Your task to perform on an android device: turn on data saver in the chrome app Image 0: 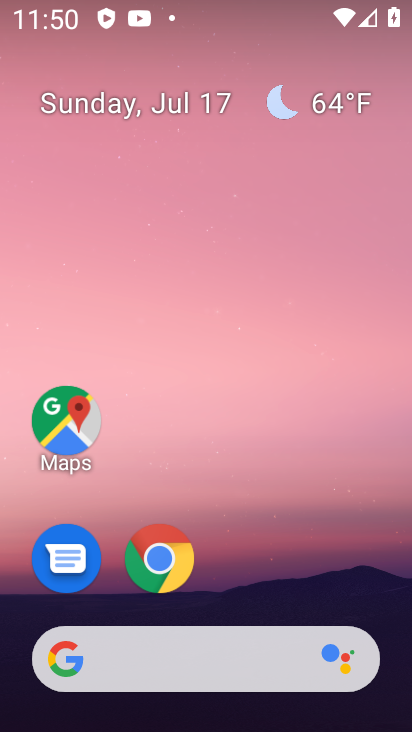
Step 0: drag from (310, 567) to (334, 113)
Your task to perform on an android device: turn on data saver in the chrome app Image 1: 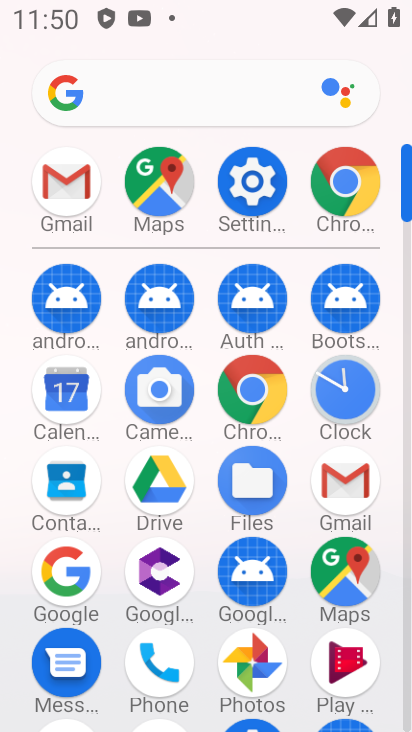
Step 1: click (254, 381)
Your task to perform on an android device: turn on data saver in the chrome app Image 2: 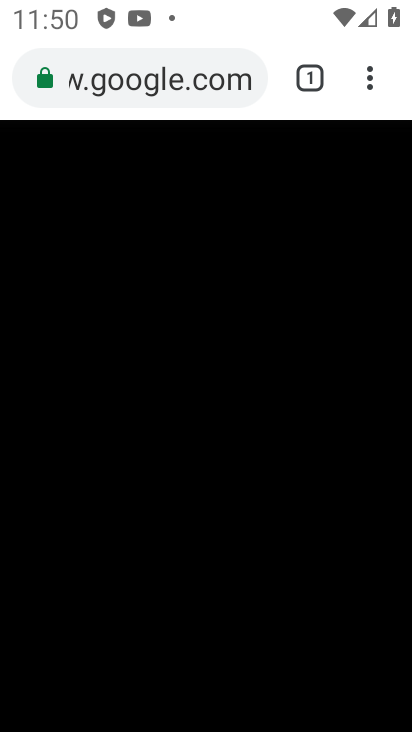
Step 2: click (374, 84)
Your task to perform on an android device: turn on data saver in the chrome app Image 3: 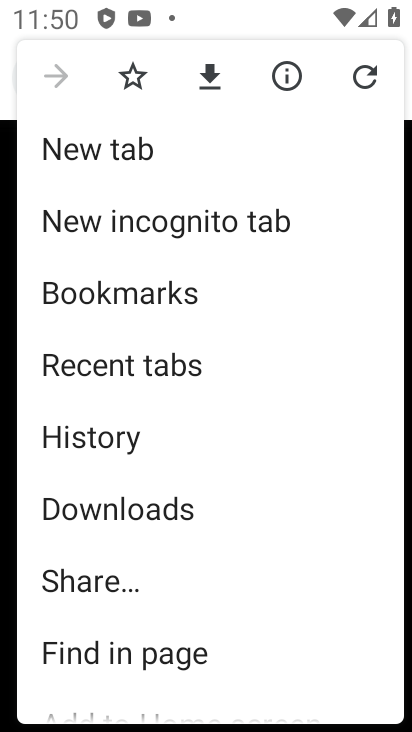
Step 3: drag from (327, 517) to (331, 438)
Your task to perform on an android device: turn on data saver in the chrome app Image 4: 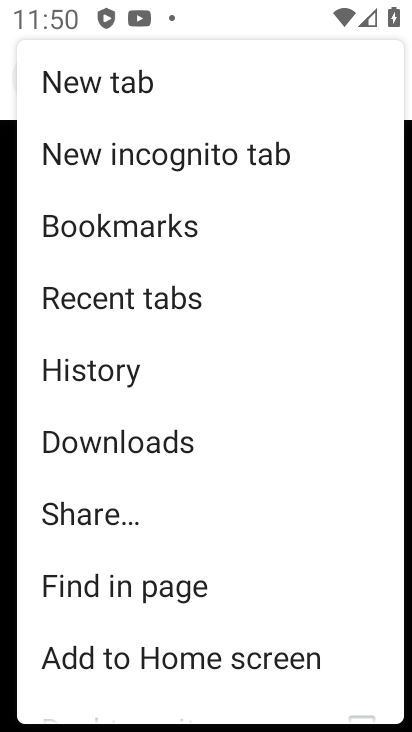
Step 4: drag from (319, 540) to (324, 455)
Your task to perform on an android device: turn on data saver in the chrome app Image 5: 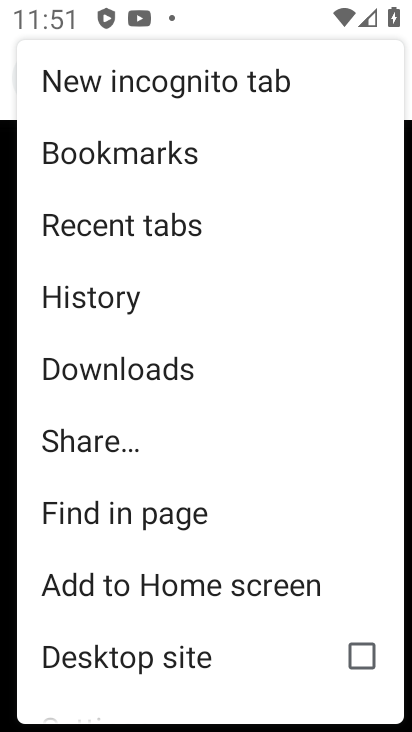
Step 5: drag from (324, 518) to (320, 446)
Your task to perform on an android device: turn on data saver in the chrome app Image 6: 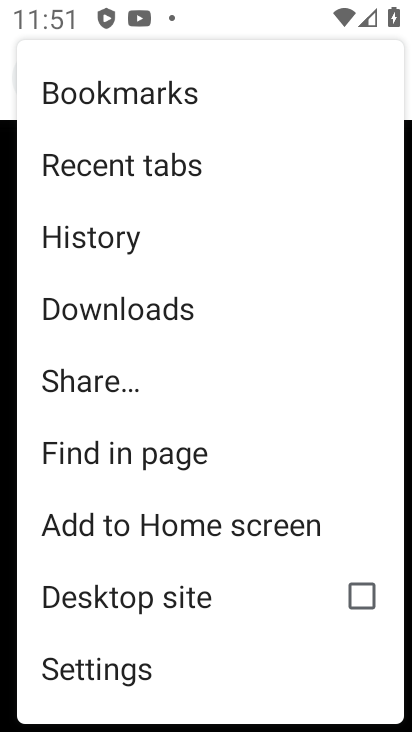
Step 6: drag from (308, 465) to (308, 430)
Your task to perform on an android device: turn on data saver in the chrome app Image 7: 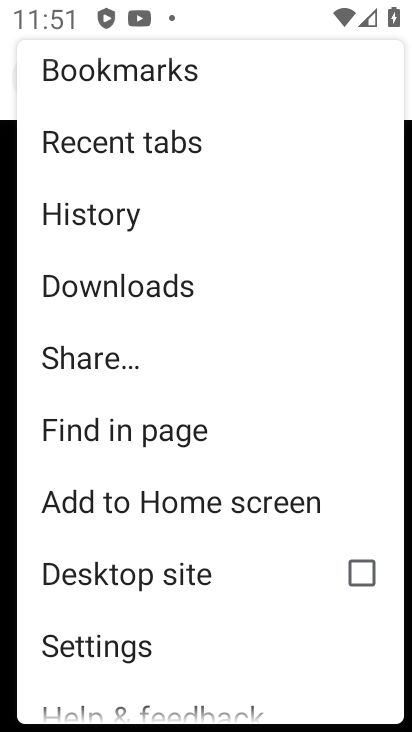
Step 7: click (156, 654)
Your task to perform on an android device: turn on data saver in the chrome app Image 8: 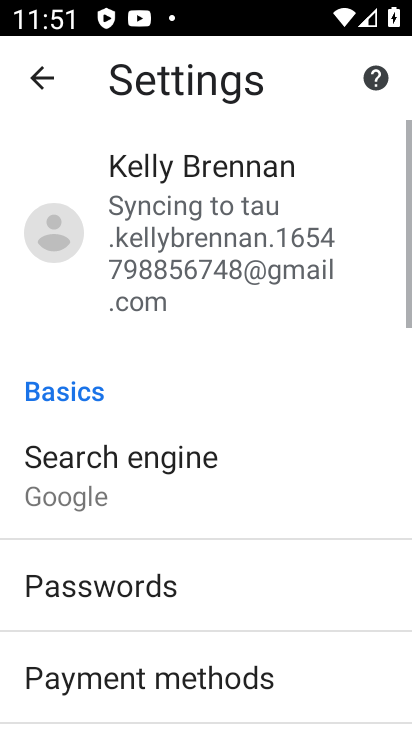
Step 8: drag from (299, 587) to (315, 505)
Your task to perform on an android device: turn on data saver in the chrome app Image 9: 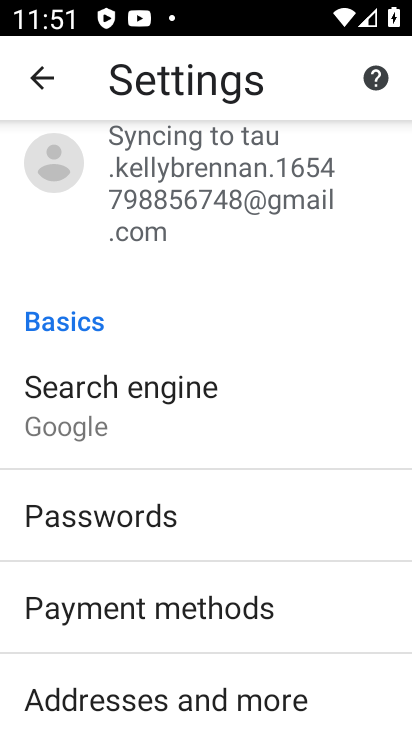
Step 9: drag from (325, 581) to (329, 520)
Your task to perform on an android device: turn on data saver in the chrome app Image 10: 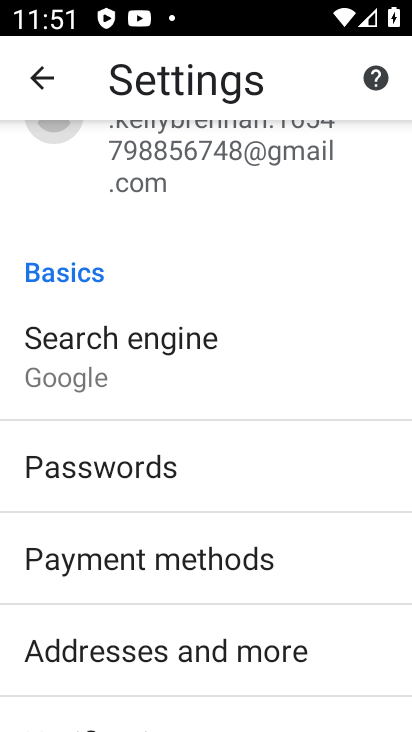
Step 10: drag from (335, 564) to (339, 465)
Your task to perform on an android device: turn on data saver in the chrome app Image 11: 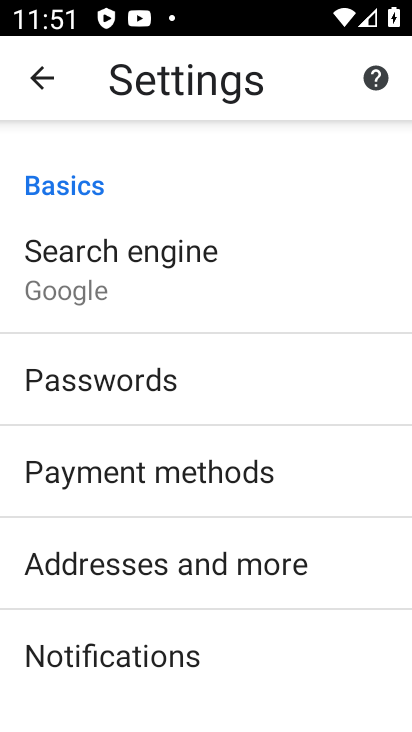
Step 11: drag from (345, 572) to (347, 478)
Your task to perform on an android device: turn on data saver in the chrome app Image 12: 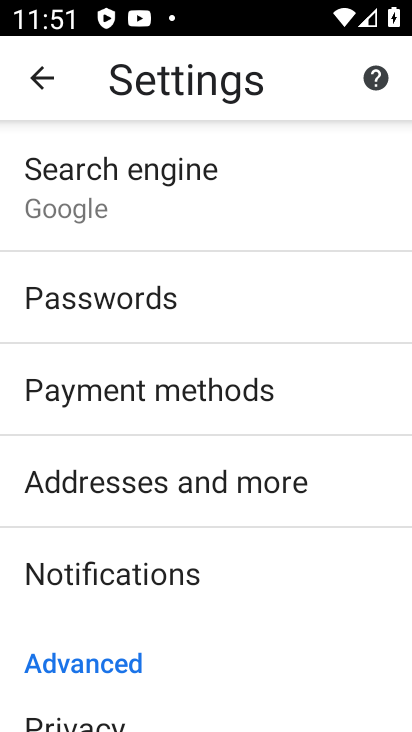
Step 12: drag from (341, 588) to (345, 502)
Your task to perform on an android device: turn on data saver in the chrome app Image 13: 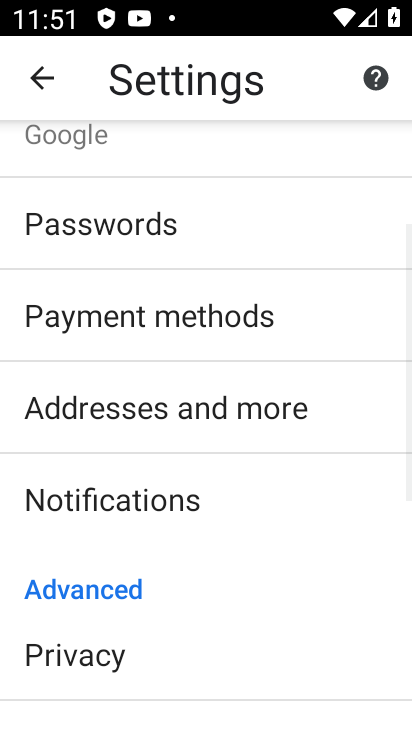
Step 13: drag from (346, 587) to (339, 443)
Your task to perform on an android device: turn on data saver in the chrome app Image 14: 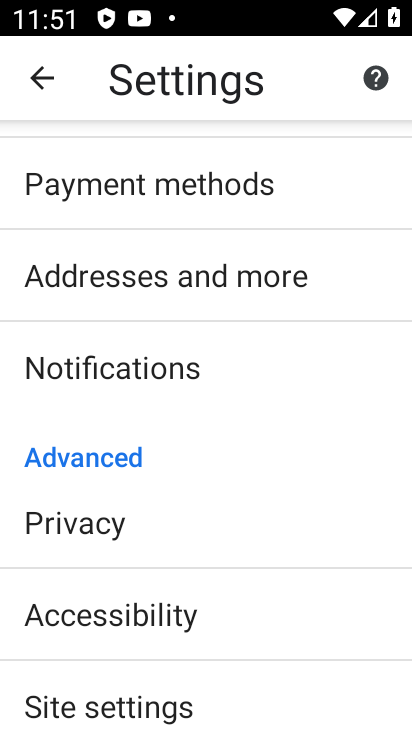
Step 14: drag from (340, 614) to (326, 499)
Your task to perform on an android device: turn on data saver in the chrome app Image 15: 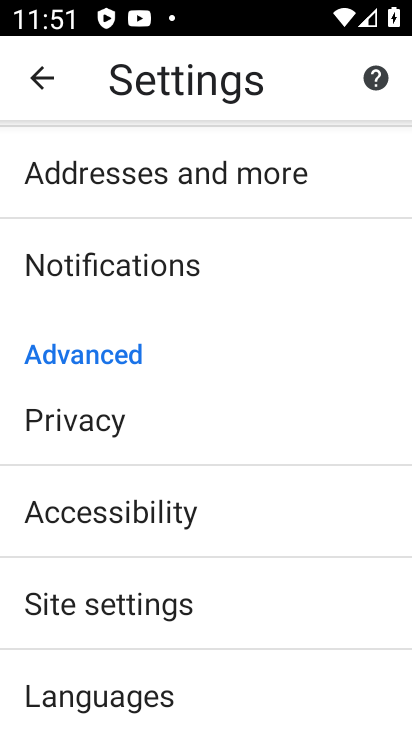
Step 15: drag from (336, 593) to (337, 504)
Your task to perform on an android device: turn on data saver in the chrome app Image 16: 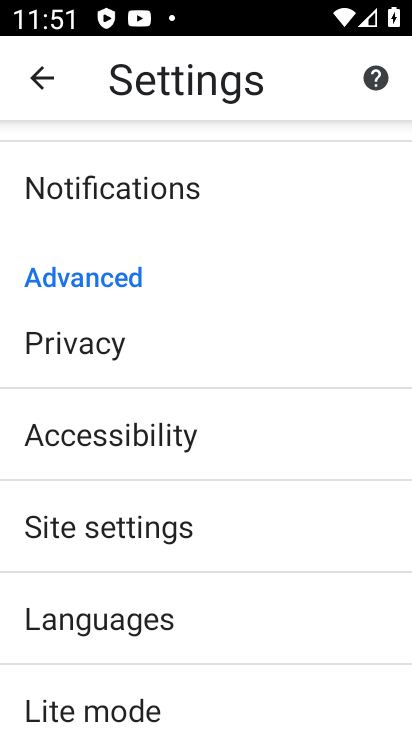
Step 16: drag from (334, 573) to (335, 532)
Your task to perform on an android device: turn on data saver in the chrome app Image 17: 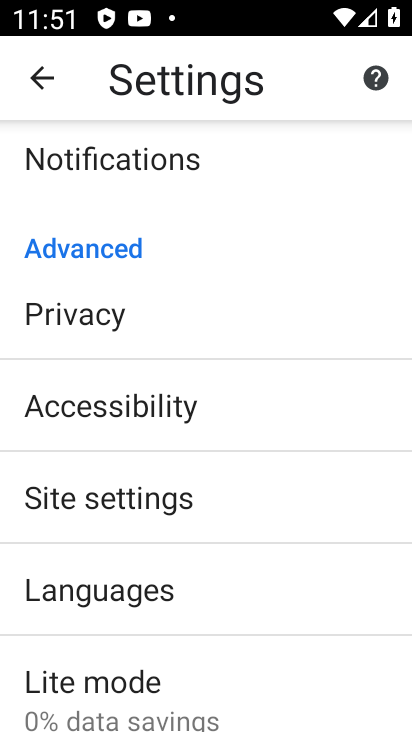
Step 17: drag from (333, 556) to (338, 522)
Your task to perform on an android device: turn on data saver in the chrome app Image 18: 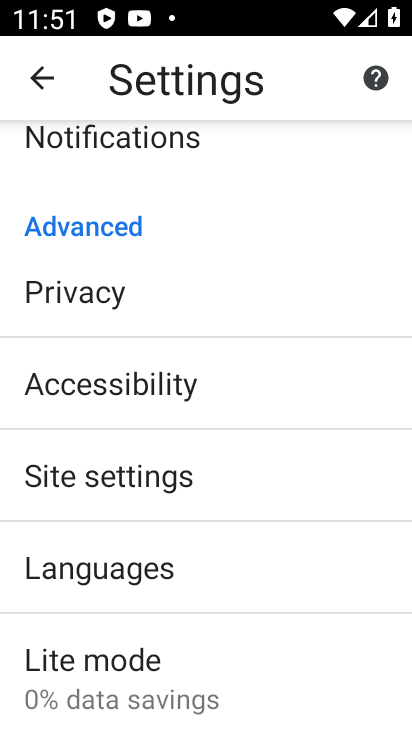
Step 18: drag from (334, 622) to (338, 491)
Your task to perform on an android device: turn on data saver in the chrome app Image 19: 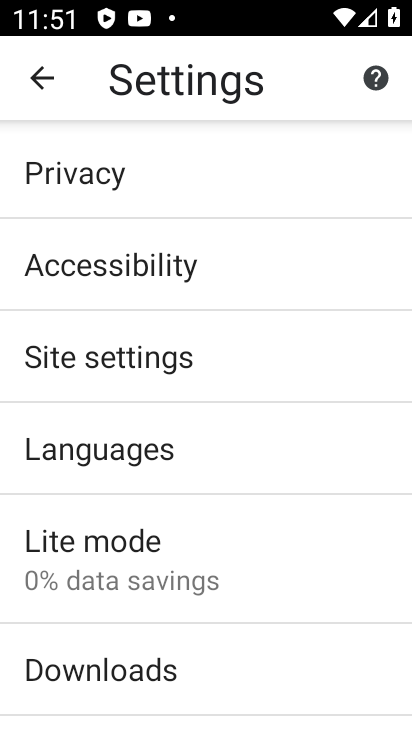
Step 19: click (321, 561)
Your task to perform on an android device: turn on data saver in the chrome app Image 20: 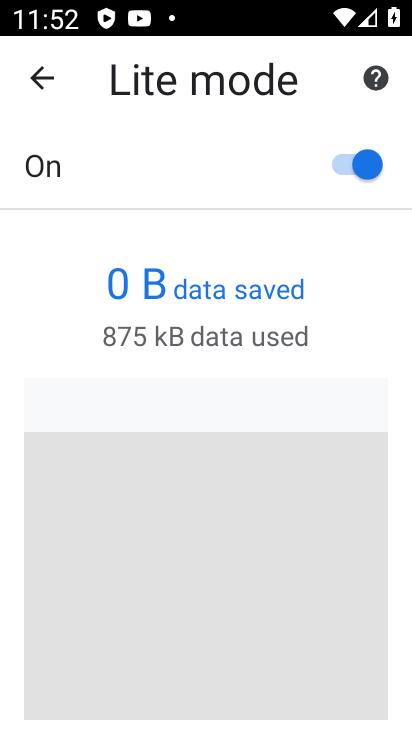
Step 20: task complete